Your task to perform on an android device: turn off smart reply in the gmail app Image 0: 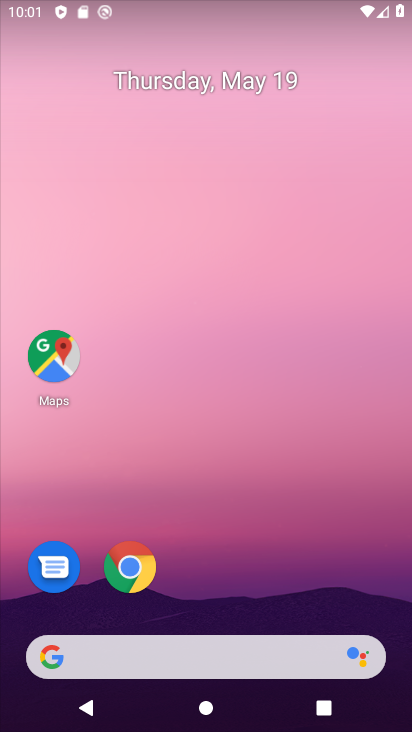
Step 0: drag from (314, 608) to (275, 427)
Your task to perform on an android device: turn off smart reply in the gmail app Image 1: 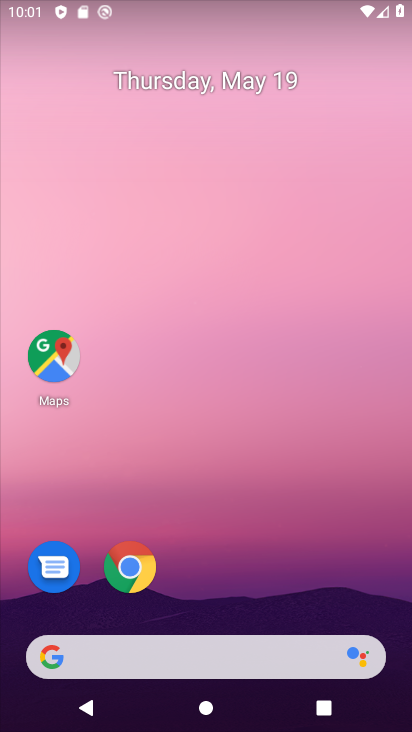
Step 1: drag from (368, 591) to (244, 12)
Your task to perform on an android device: turn off smart reply in the gmail app Image 2: 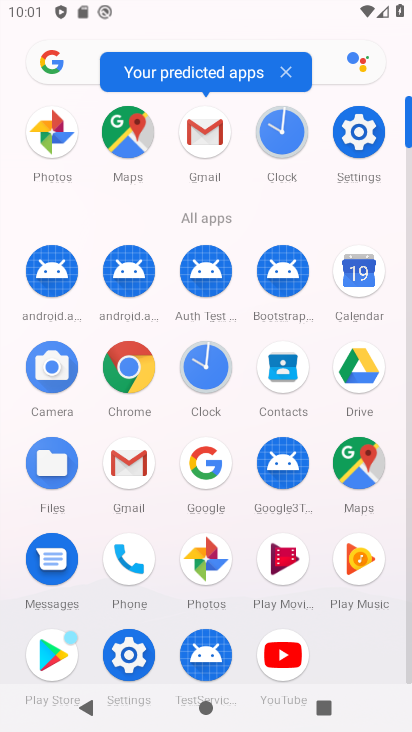
Step 2: click (129, 456)
Your task to perform on an android device: turn off smart reply in the gmail app Image 3: 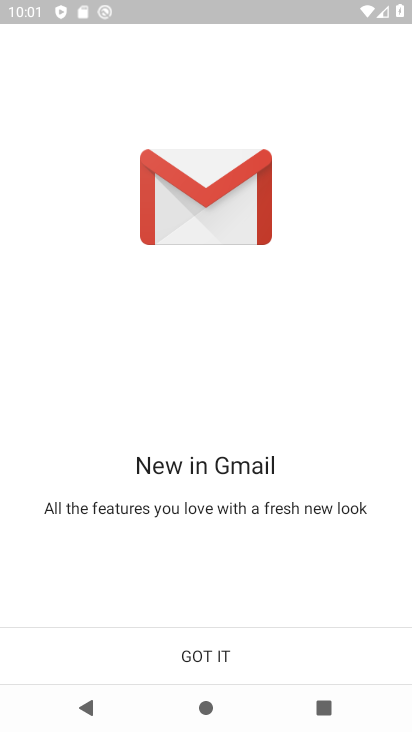
Step 3: click (305, 666)
Your task to perform on an android device: turn off smart reply in the gmail app Image 4: 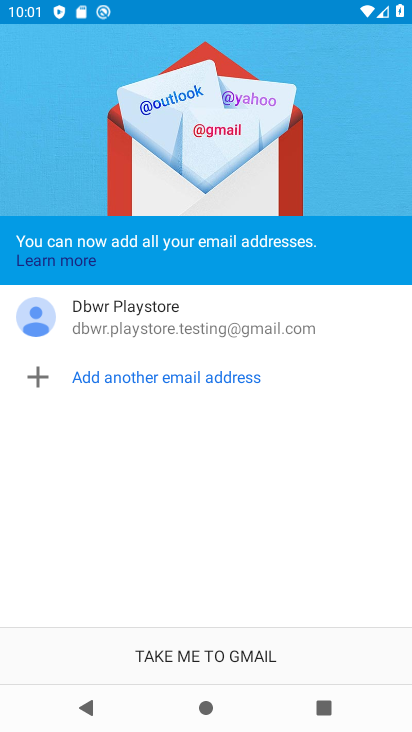
Step 4: click (305, 666)
Your task to perform on an android device: turn off smart reply in the gmail app Image 5: 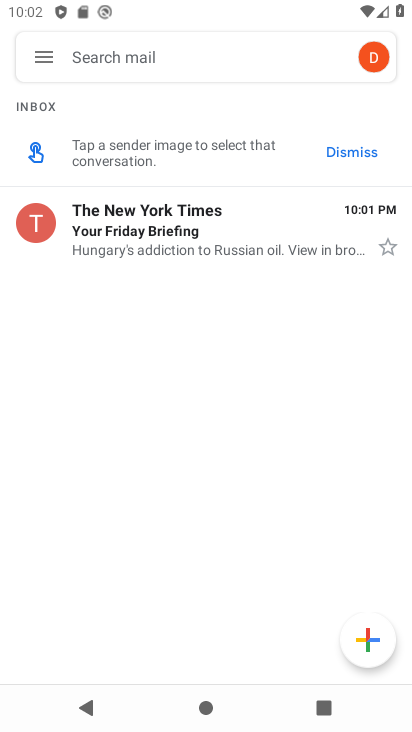
Step 5: press home button
Your task to perform on an android device: turn off smart reply in the gmail app Image 6: 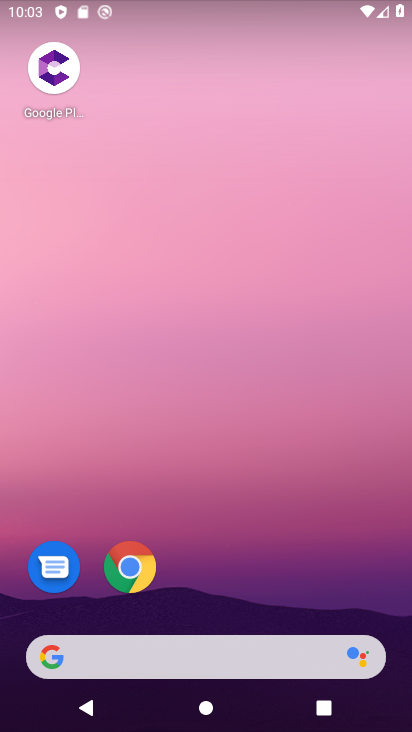
Step 6: drag from (333, 599) to (196, 5)
Your task to perform on an android device: turn off smart reply in the gmail app Image 7: 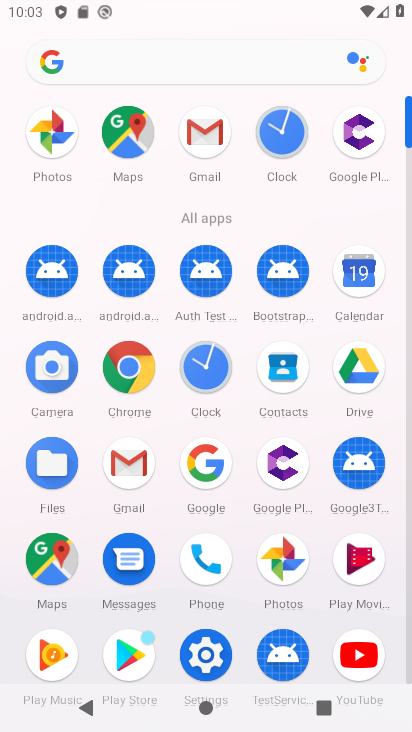
Step 7: click (147, 467)
Your task to perform on an android device: turn off smart reply in the gmail app Image 8: 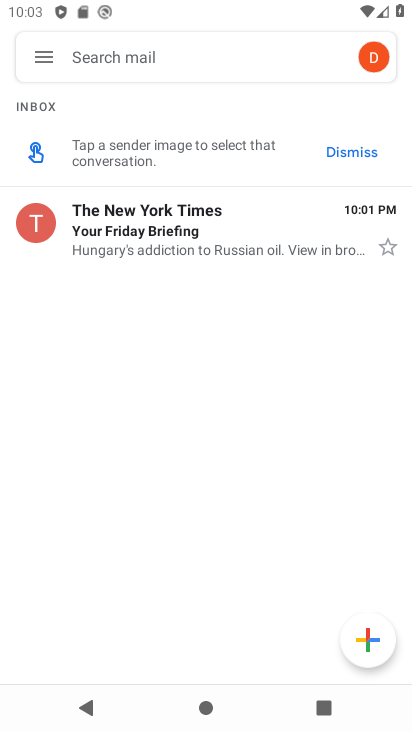
Step 8: click (58, 48)
Your task to perform on an android device: turn off smart reply in the gmail app Image 9: 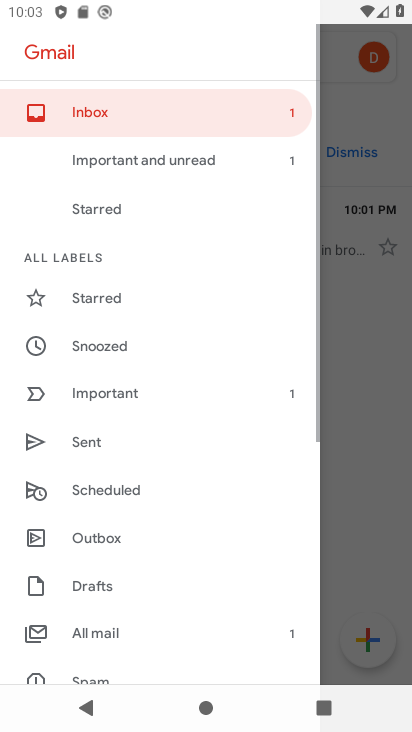
Step 9: drag from (273, 580) to (265, 108)
Your task to perform on an android device: turn off smart reply in the gmail app Image 10: 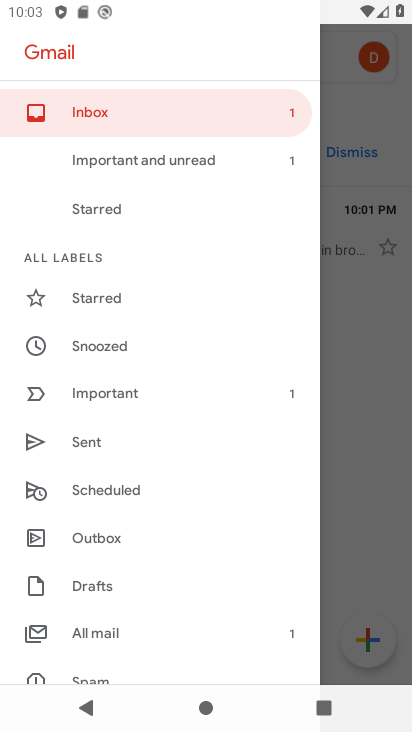
Step 10: drag from (167, 554) to (72, 0)
Your task to perform on an android device: turn off smart reply in the gmail app Image 11: 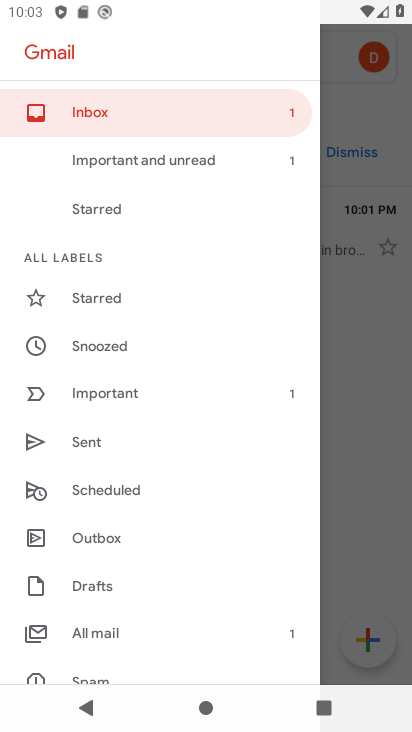
Step 11: drag from (305, 556) to (237, 336)
Your task to perform on an android device: turn off smart reply in the gmail app Image 12: 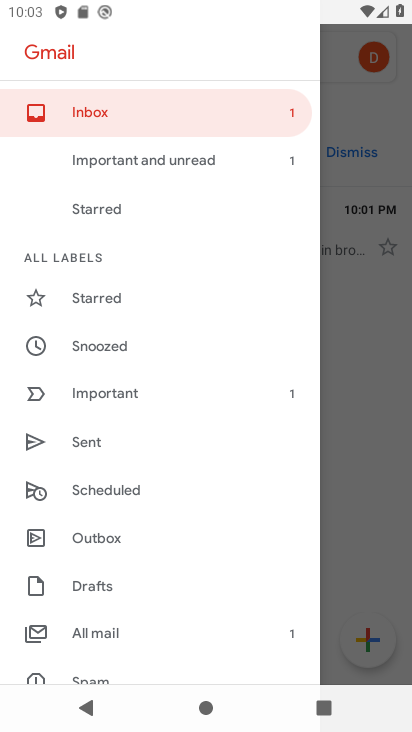
Step 12: drag from (279, 574) to (261, 373)
Your task to perform on an android device: turn off smart reply in the gmail app Image 13: 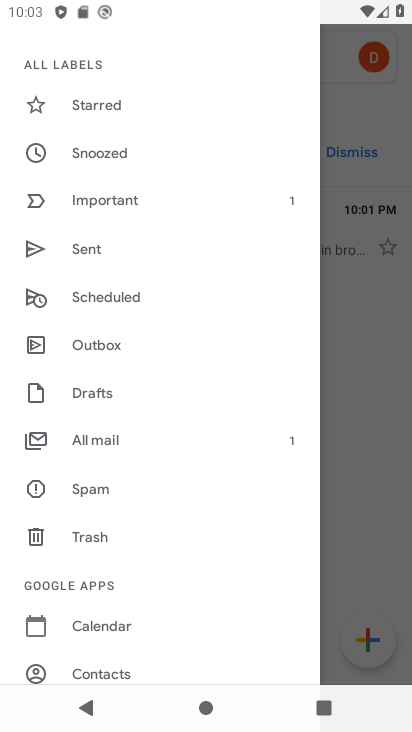
Step 13: drag from (225, 635) to (170, 226)
Your task to perform on an android device: turn off smart reply in the gmail app Image 14: 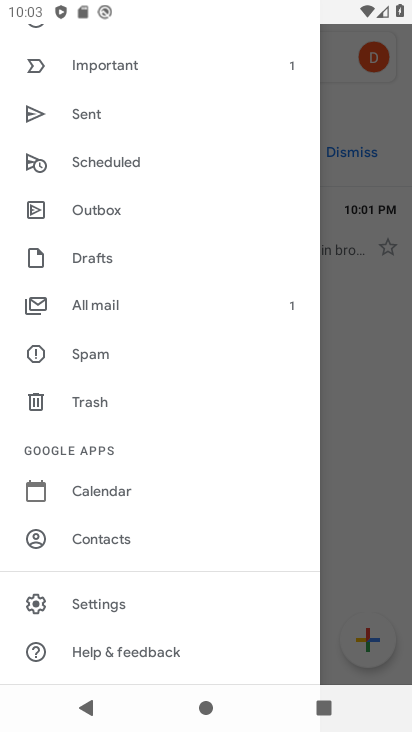
Step 14: click (68, 602)
Your task to perform on an android device: turn off smart reply in the gmail app Image 15: 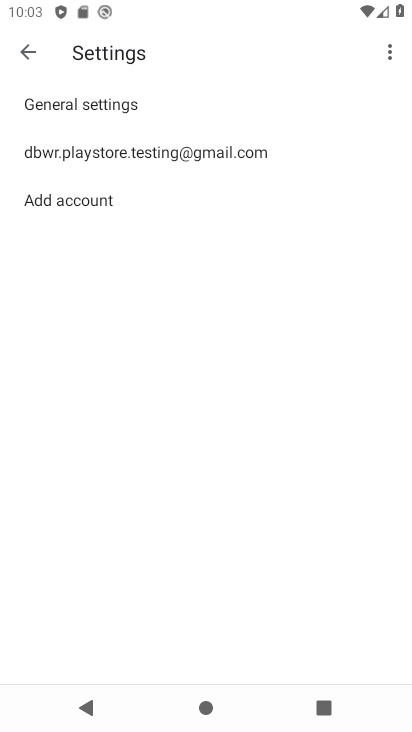
Step 15: click (124, 148)
Your task to perform on an android device: turn off smart reply in the gmail app Image 16: 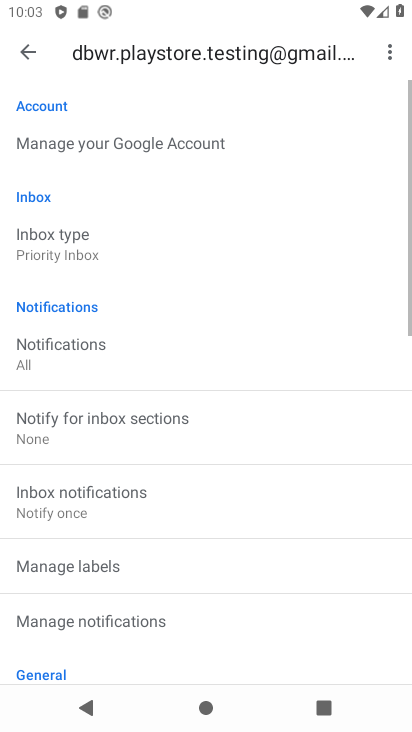
Step 16: drag from (351, 480) to (323, 71)
Your task to perform on an android device: turn off smart reply in the gmail app Image 17: 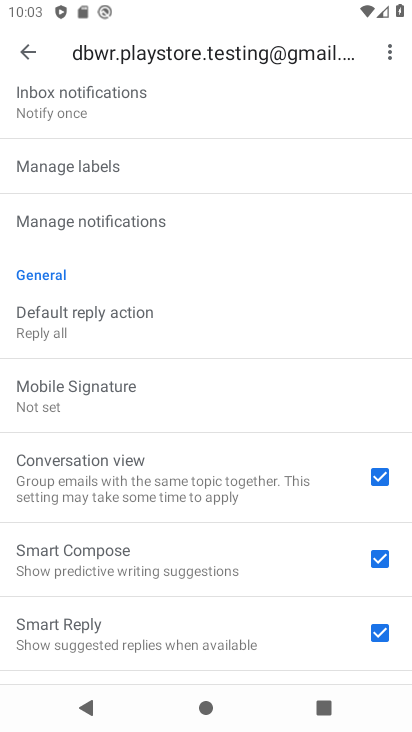
Step 17: click (377, 629)
Your task to perform on an android device: turn off smart reply in the gmail app Image 18: 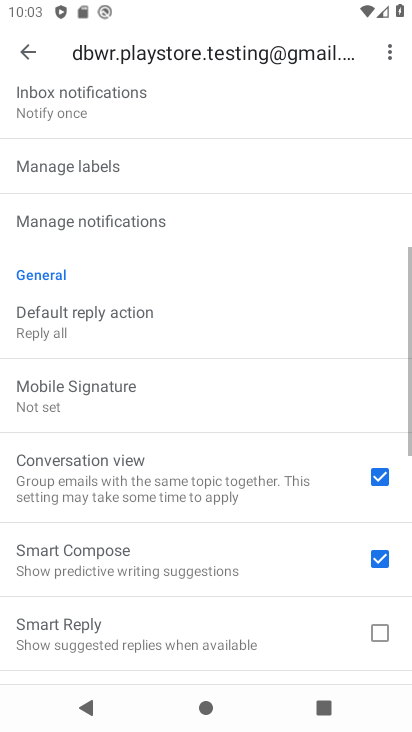
Step 18: task complete